Your task to perform on an android device: delete the emails in spam in the gmail app Image 0: 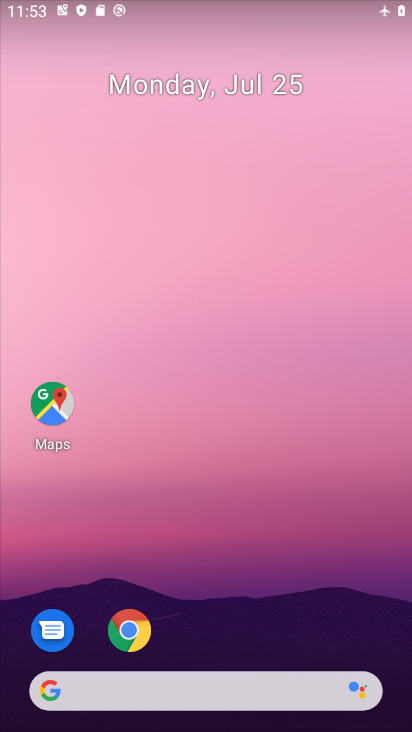
Step 0: press home button
Your task to perform on an android device: delete the emails in spam in the gmail app Image 1: 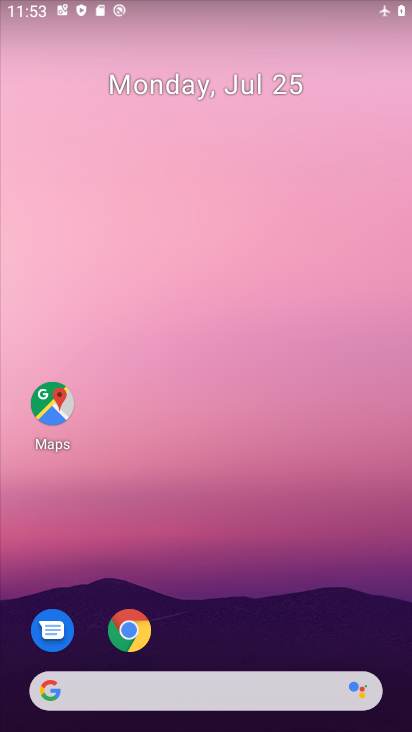
Step 1: drag from (375, 635) to (383, 104)
Your task to perform on an android device: delete the emails in spam in the gmail app Image 2: 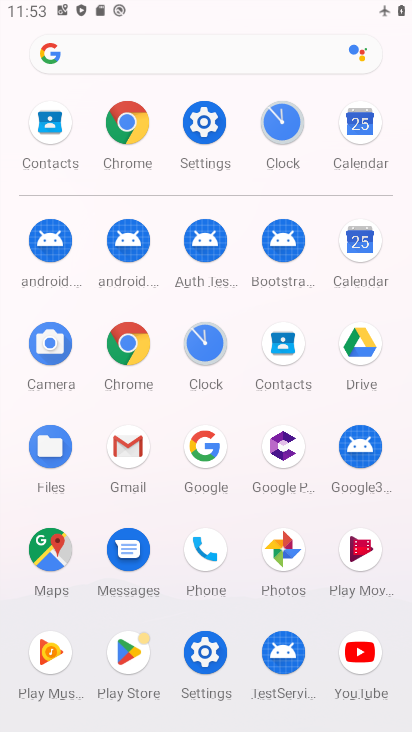
Step 2: click (127, 452)
Your task to perform on an android device: delete the emails in spam in the gmail app Image 3: 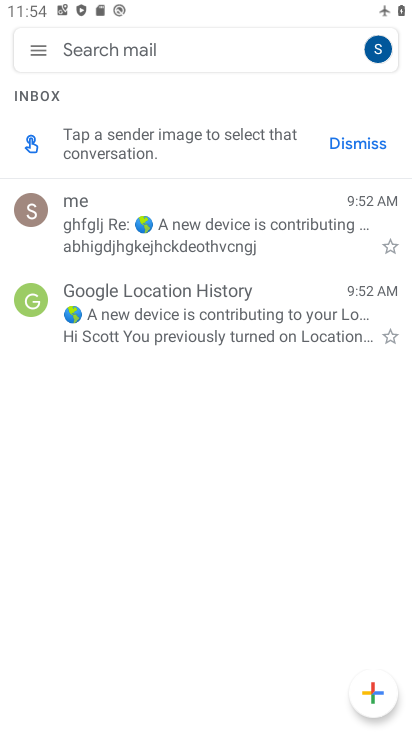
Step 3: click (163, 230)
Your task to perform on an android device: delete the emails in spam in the gmail app Image 4: 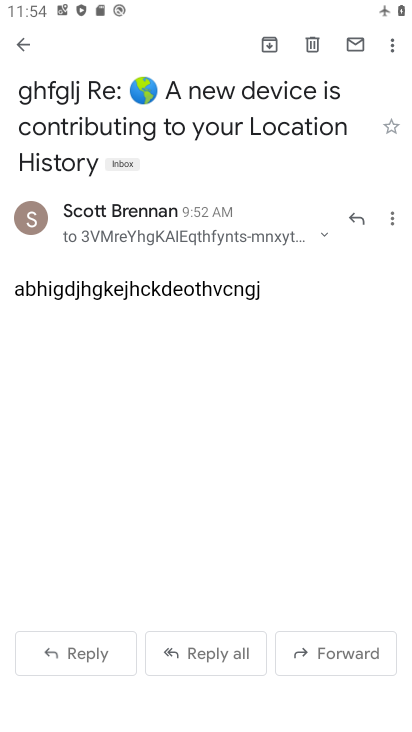
Step 4: press back button
Your task to perform on an android device: delete the emails in spam in the gmail app Image 5: 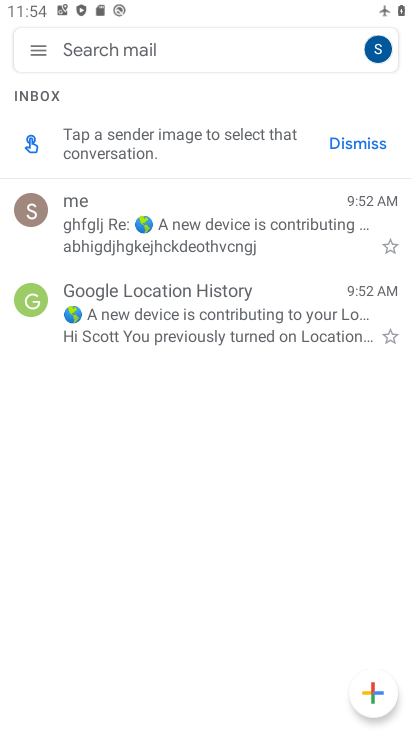
Step 5: click (35, 47)
Your task to perform on an android device: delete the emails in spam in the gmail app Image 6: 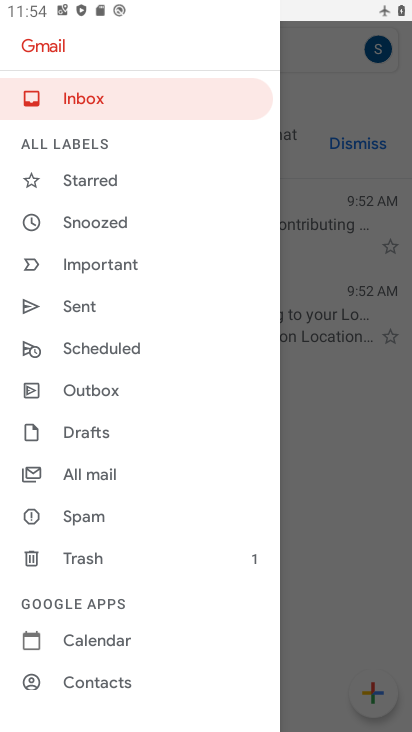
Step 6: click (102, 519)
Your task to perform on an android device: delete the emails in spam in the gmail app Image 7: 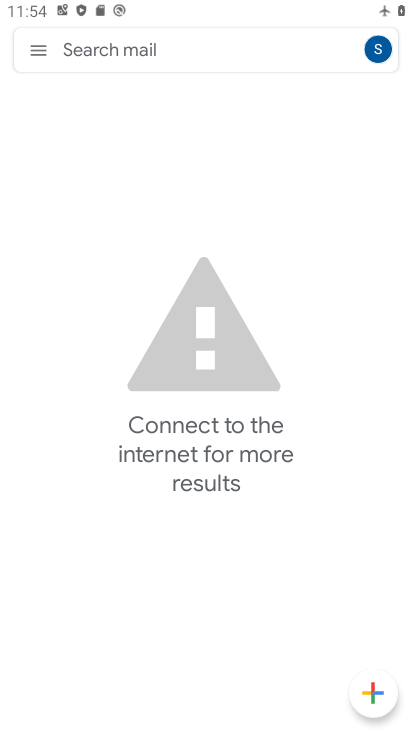
Step 7: task complete